Your task to perform on an android device: toggle airplane mode Image 0: 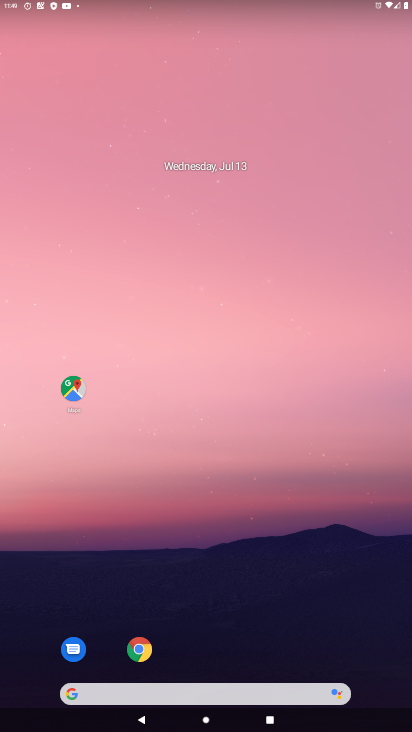
Step 0: drag from (182, 690) to (248, 283)
Your task to perform on an android device: toggle airplane mode Image 1: 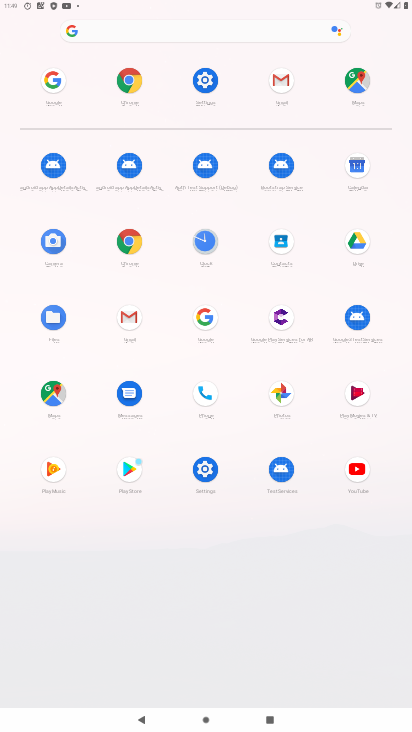
Step 1: click (207, 80)
Your task to perform on an android device: toggle airplane mode Image 2: 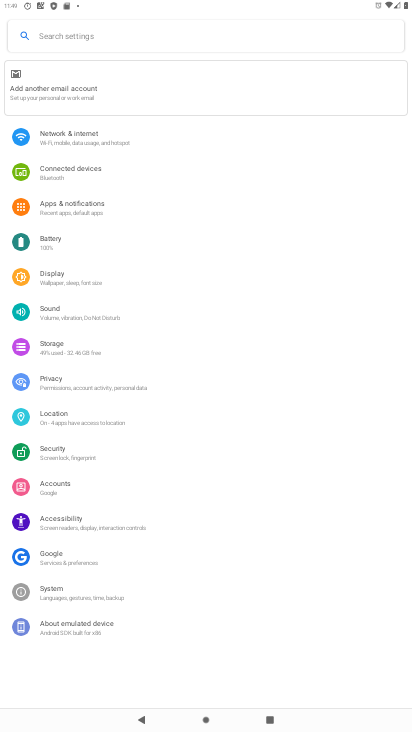
Step 2: click (117, 142)
Your task to perform on an android device: toggle airplane mode Image 3: 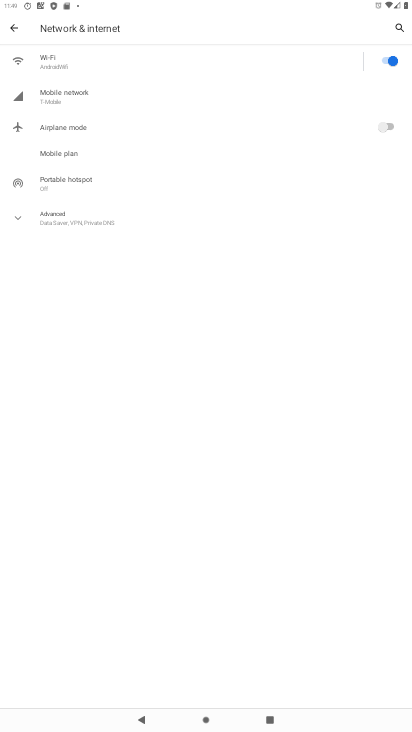
Step 3: click (382, 126)
Your task to perform on an android device: toggle airplane mode Image 4: 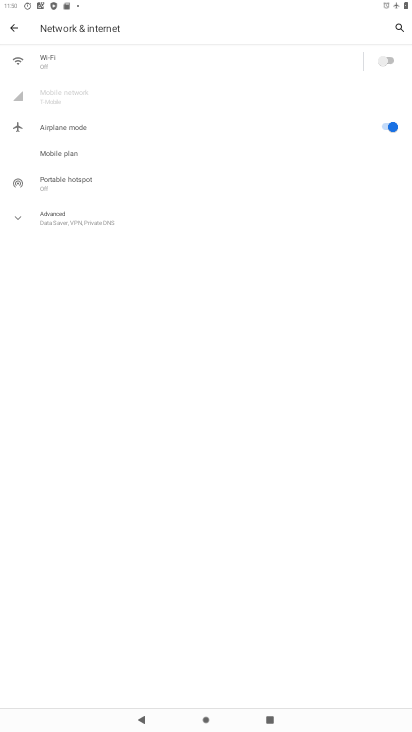
Step 4: task complete